Your task to perform on an android device: turn notification dots off Image 0: 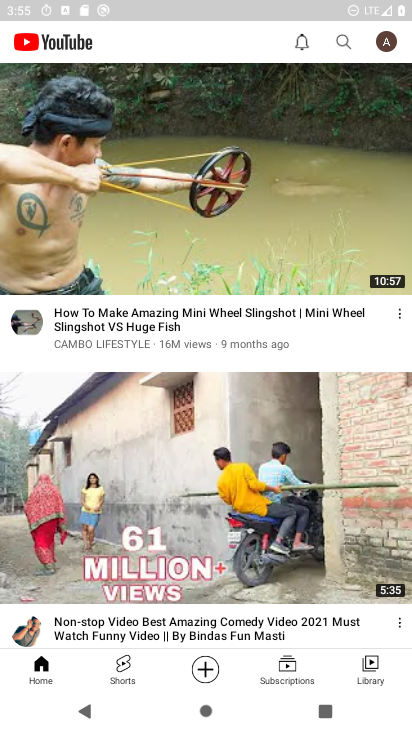
Step 0: press home button
Your task to perform on an android device: turn notification dots off Image 1: 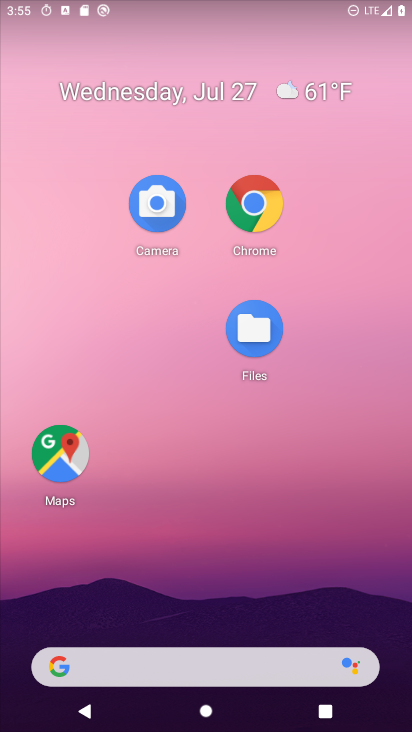
Step 1: drag from (228, 605) to (228, 91)
Your task to perform on an android device: turn notification dots off Image 2: 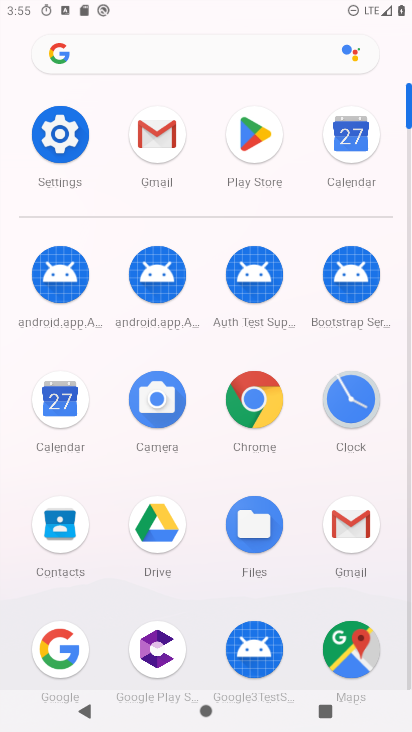
Step 2: click (50, 163)
Your task to perform on an android device: turn notification dots off Image 3: 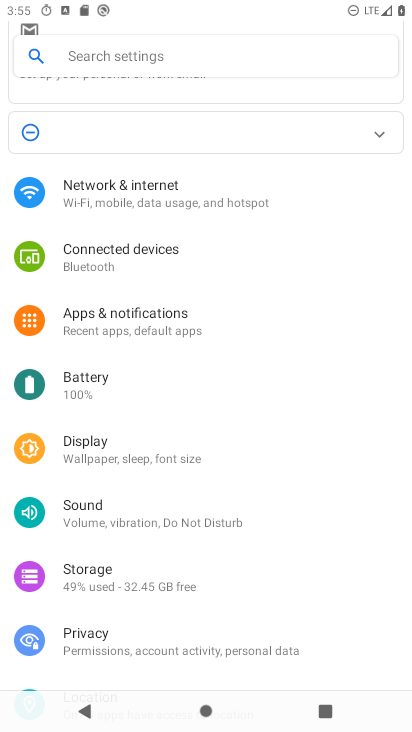
Step 3: click (180, 332)
Your task to perform on an android device: turn notification dots off Image 4: 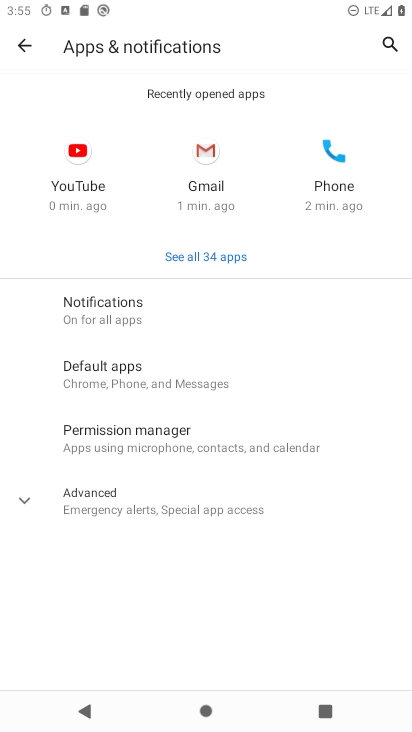
Step 4: click (166, 329)
Your task to perform on an android device: turn notification dots off Image 5: 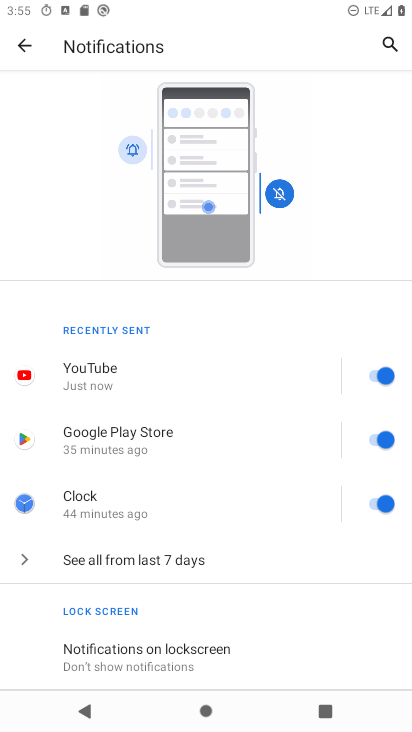
Step 5: drag from (272, 599) to (281, 134)
Your task to perform on an android device: turn notification dots off Image 6: 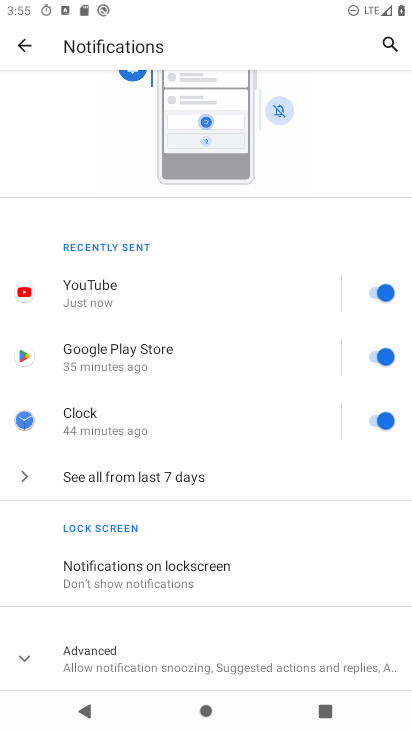
Step 6: click (187, 652)
Your task to perform on an android device: turn notification dots off Image 7: 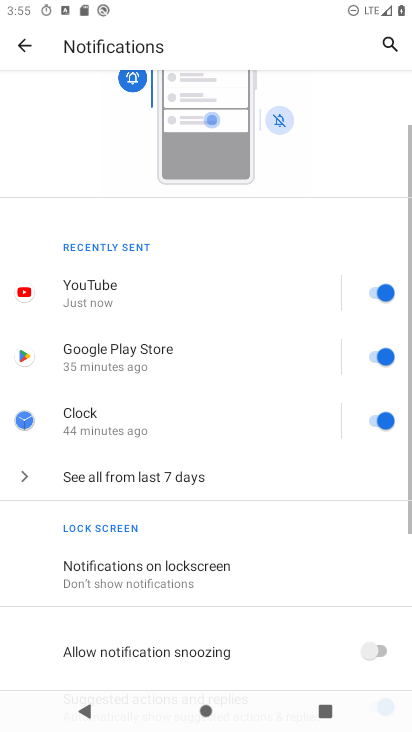
Step 7: drag from (184, 633) to (189, 245)
Your task to perform on an android device: turn notification dots off Image 8: 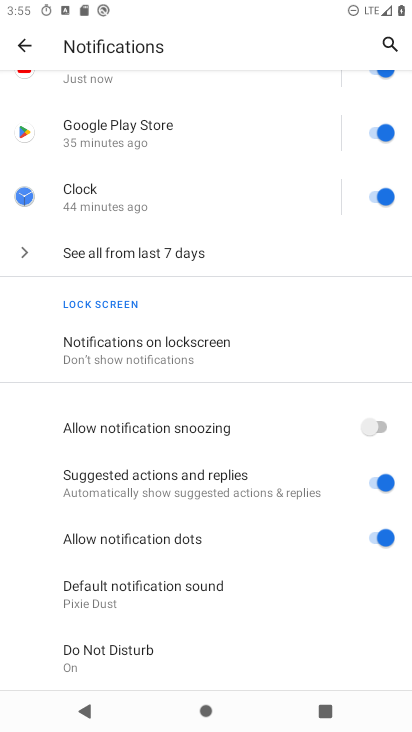
Step 8: click (382, 538)
Your task to perform on an android device: turn notification dots off Image 9: 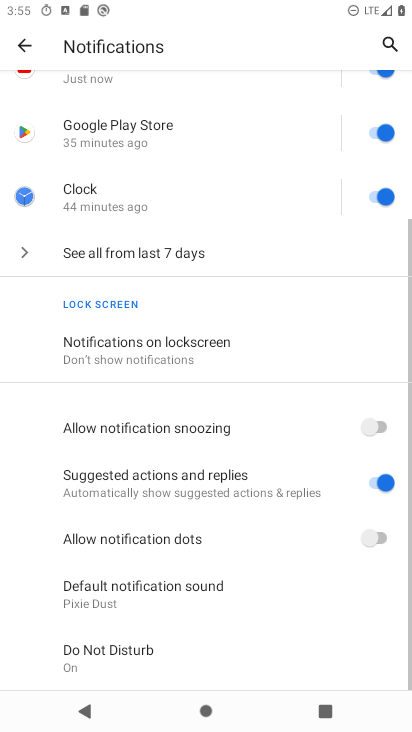
Step 9: task complete